Your task to perform on an android device: change notifications settings Image 0: 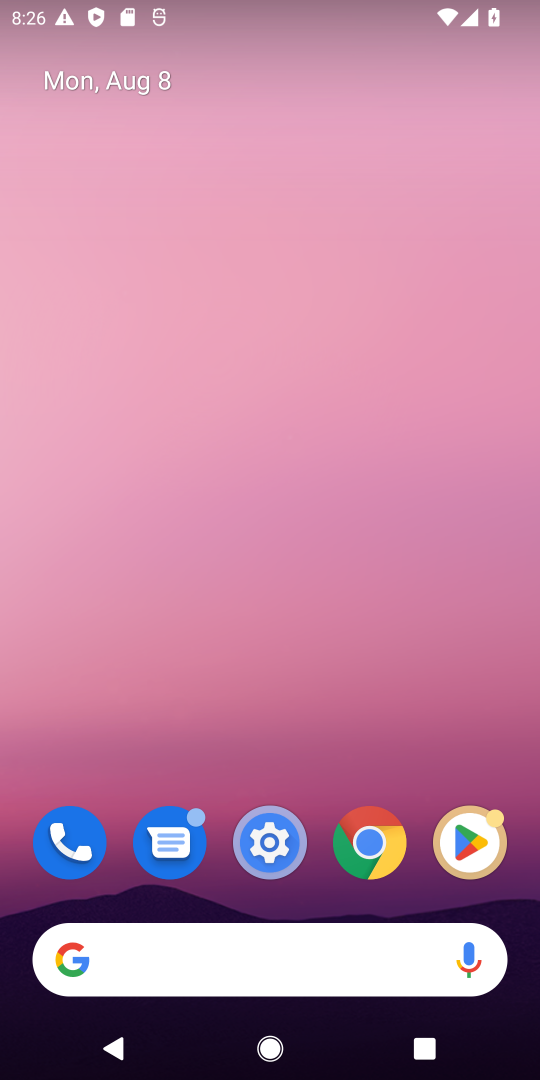
Step 0: click (271, 851)
Your task to perform on an android device: change notifications settings Image 1: 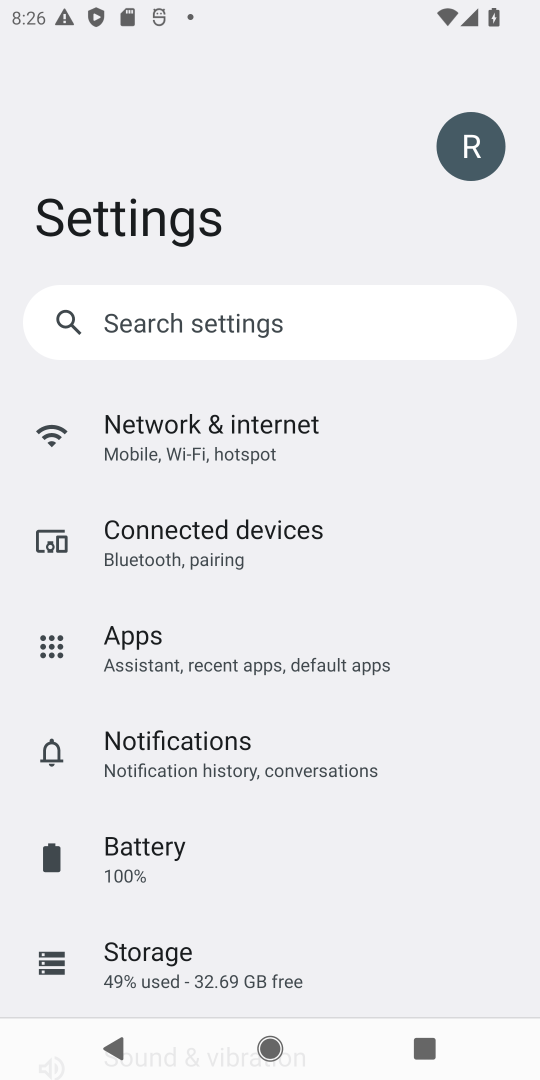
Step 1: click (245, 751)
Your task to perform on an android device: change notifications settings Image 2: 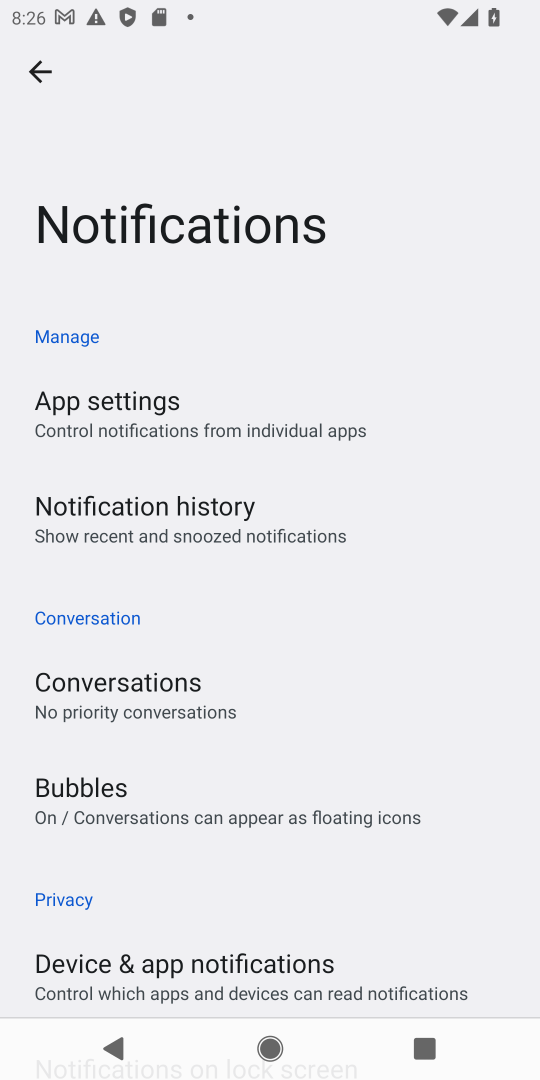
Step 2: drag from (256, 927) to (245, 744)
Your task to perform on an android device: change notifications settings Image 3: 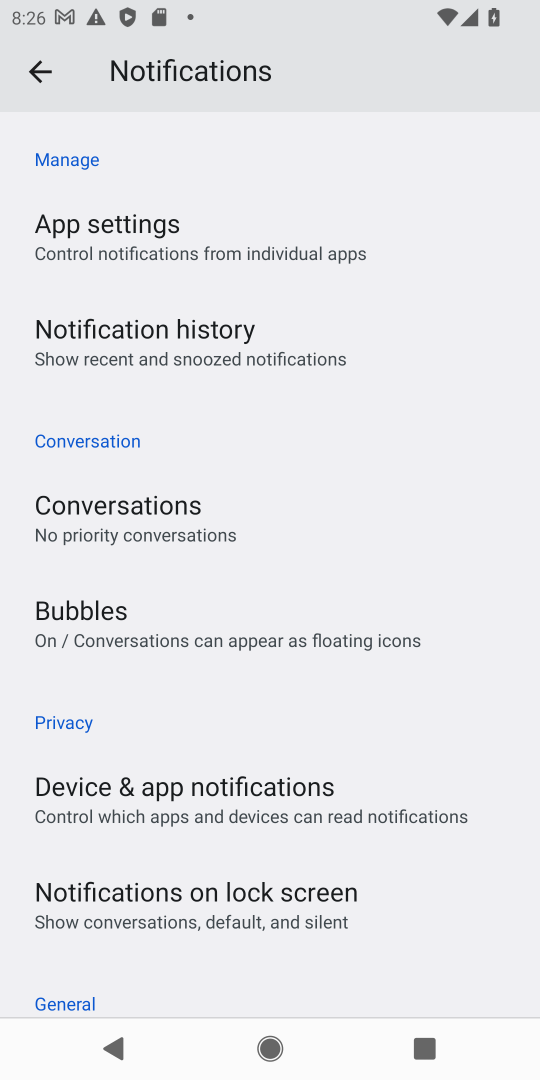
Step 3: click (240, 251)
Your task to perform on an android device: change notifications settings Image 4: 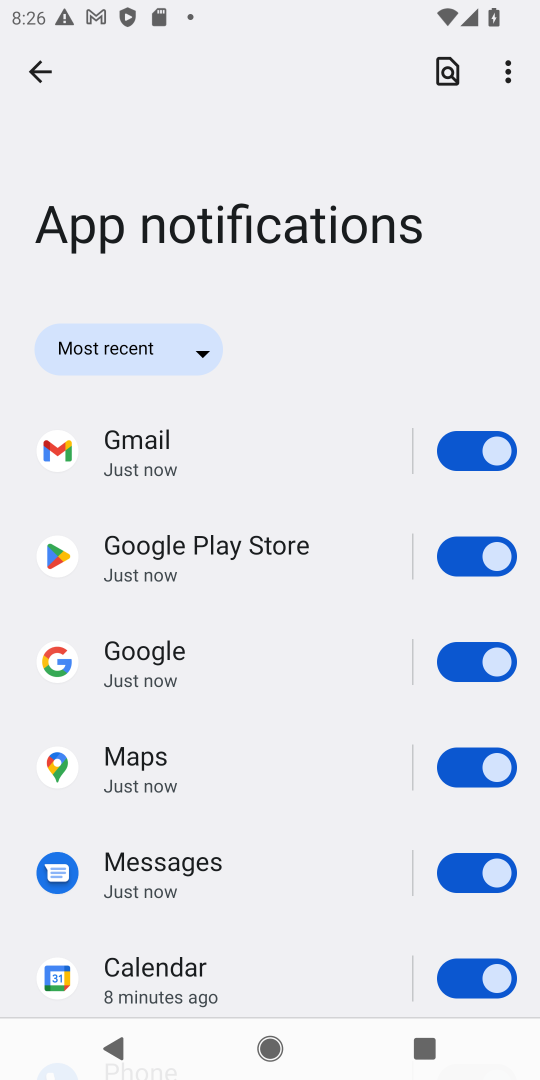
Step 4: click (475, 425)
Your task to perform on an android device: change notifications settings Image 5: 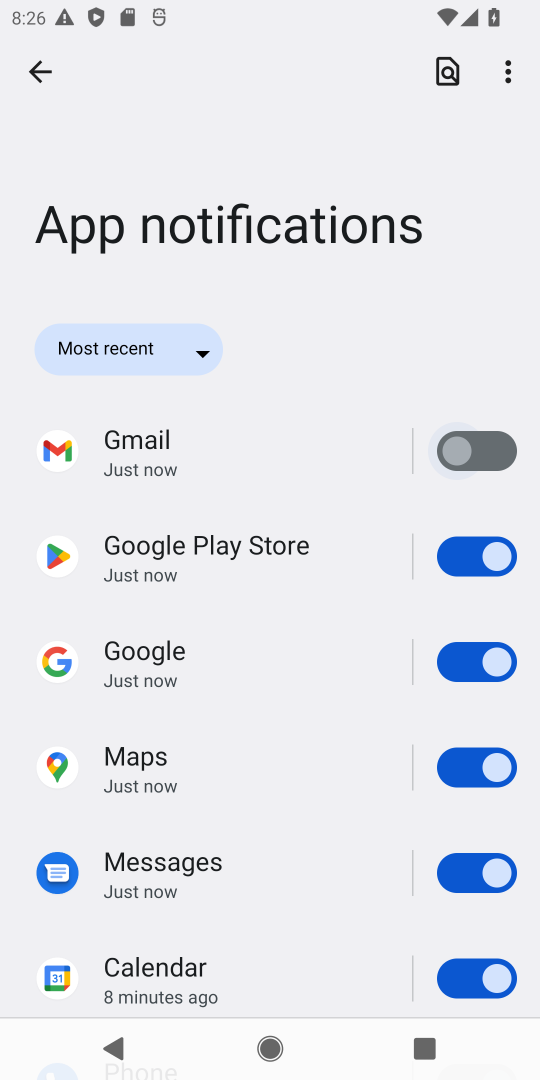
Step 5: click (464, 570)
Your task to perform on an android device: change notifications settings Image 6: 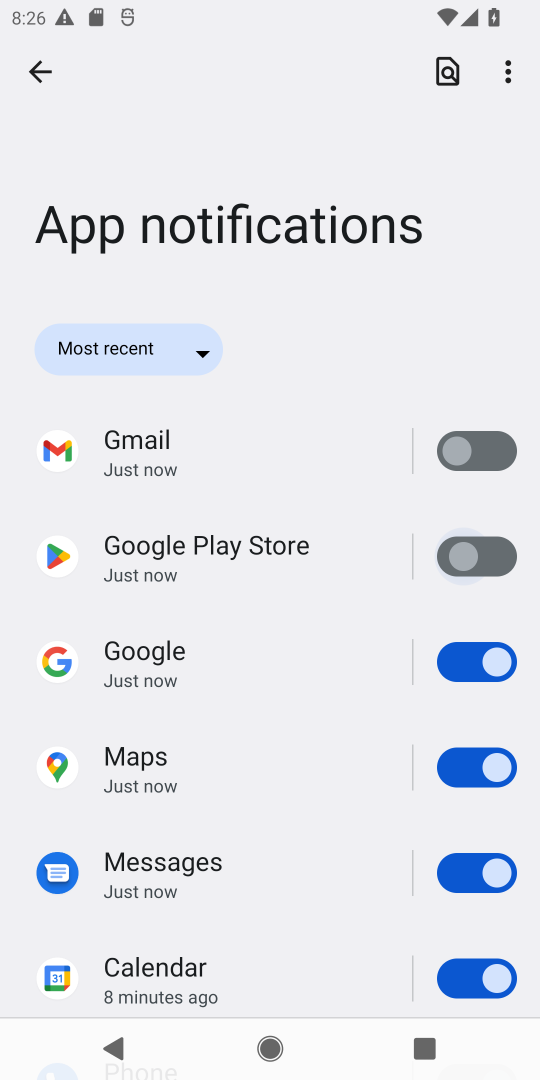
Step 6: click (464, 653)
Your task to perform on an android device: change notifications settings Image 7: 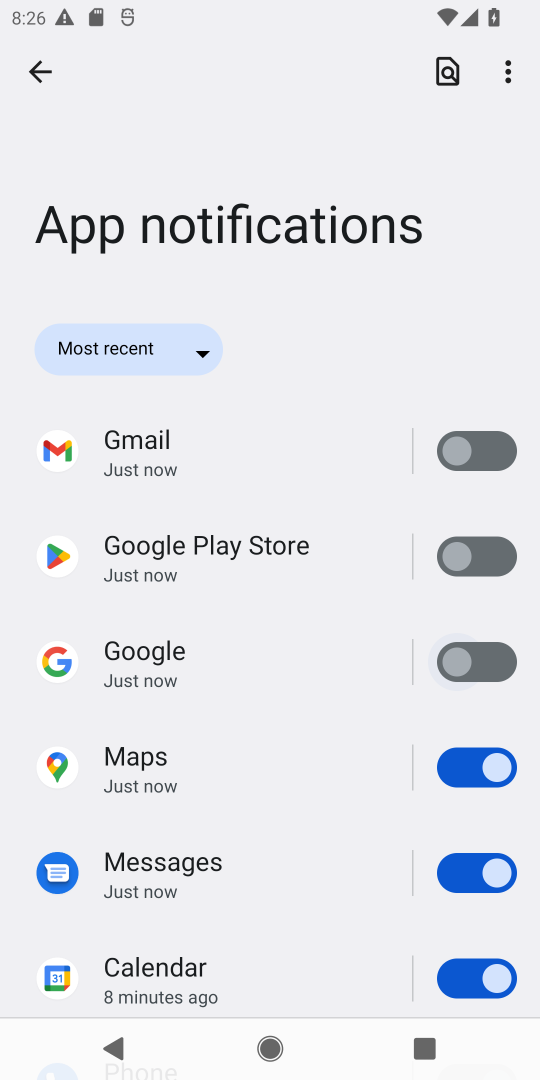
Step 7: click (467, 768)
Your task to perform on an android device: change notifications settings Image 8: 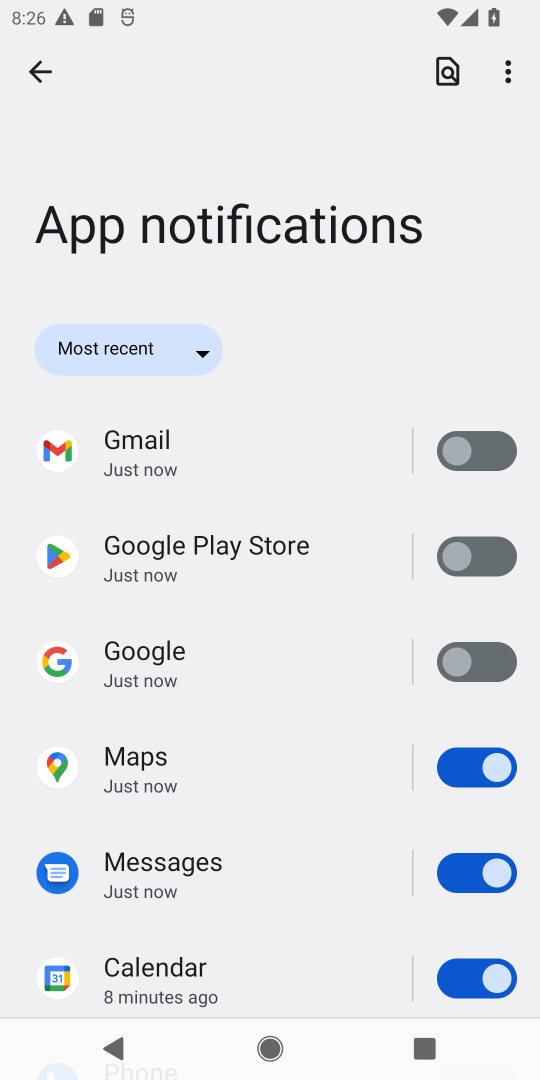
Step 8: click (467, 864)
Your task to perform on an android device: change notifications settings Image 9: 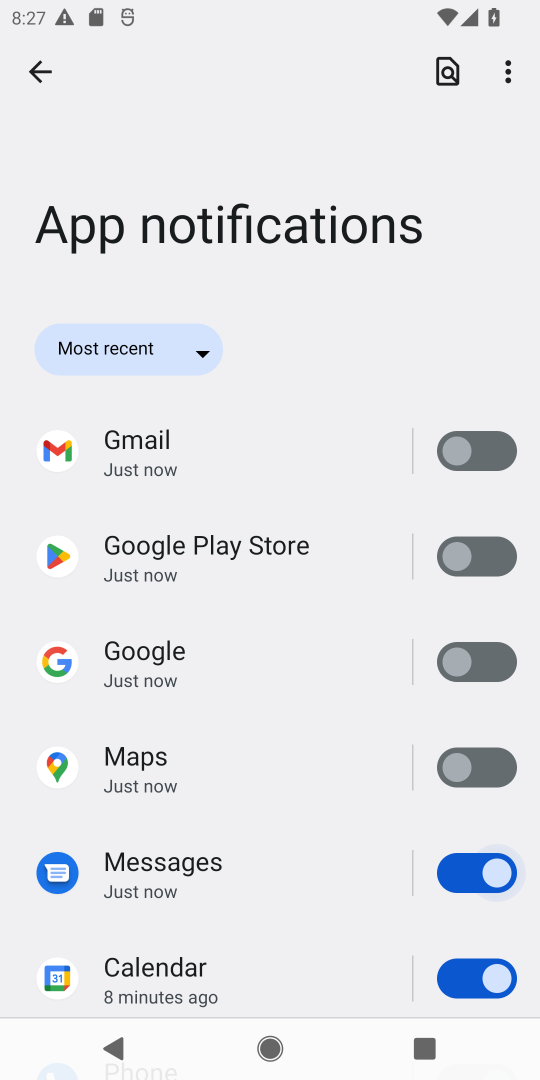
Step 9: click (466, 988)
Your task to perform on an android device: change notifications settings Image 10: 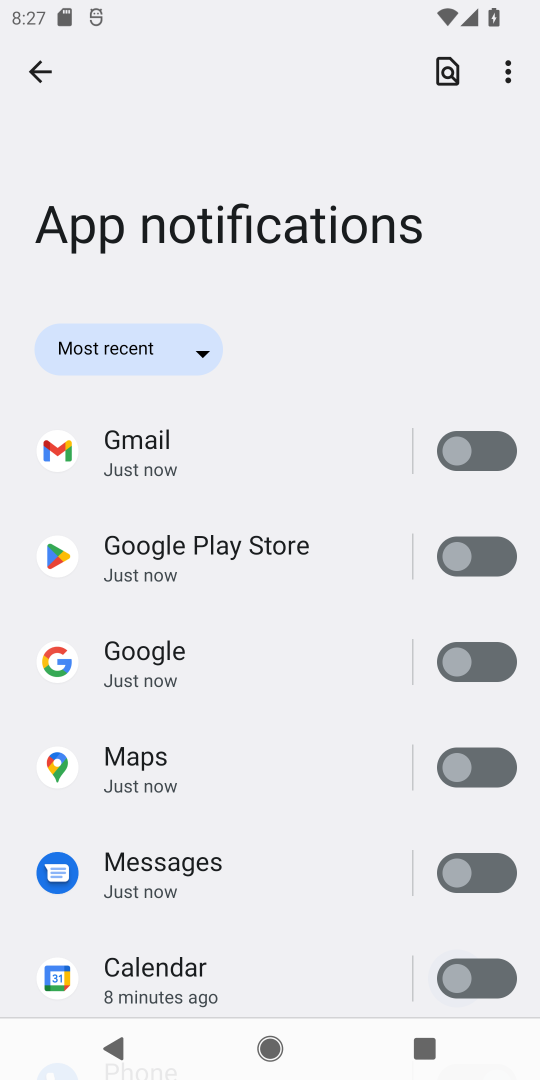
Step 10: drag from (289, 934) to (238, 249)
Your task to perform on an android device: change notifications settings Image 11: 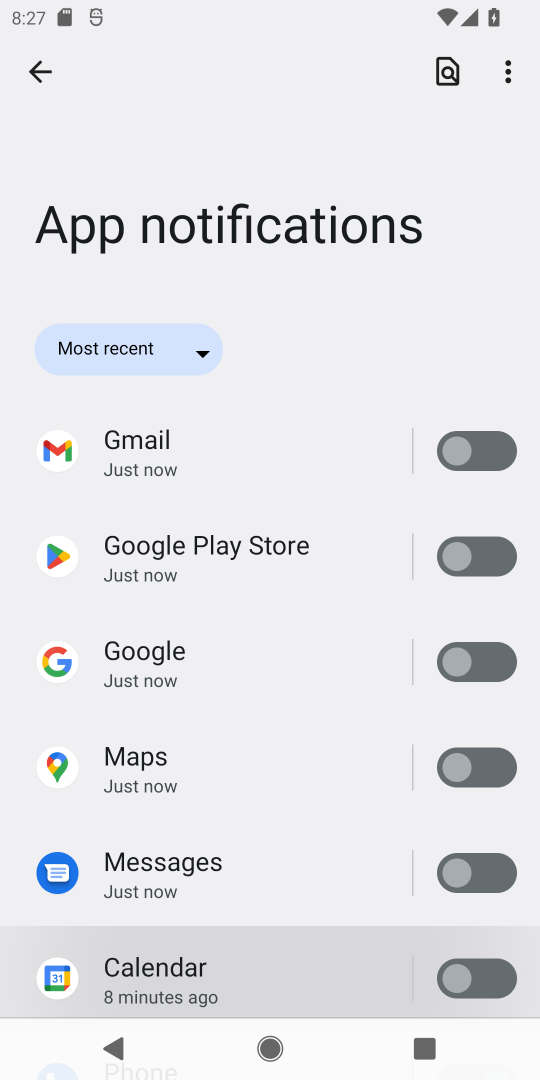
Step 11: click (238, 249)
Your task to perform on an android device: change notifications settings Image 12: 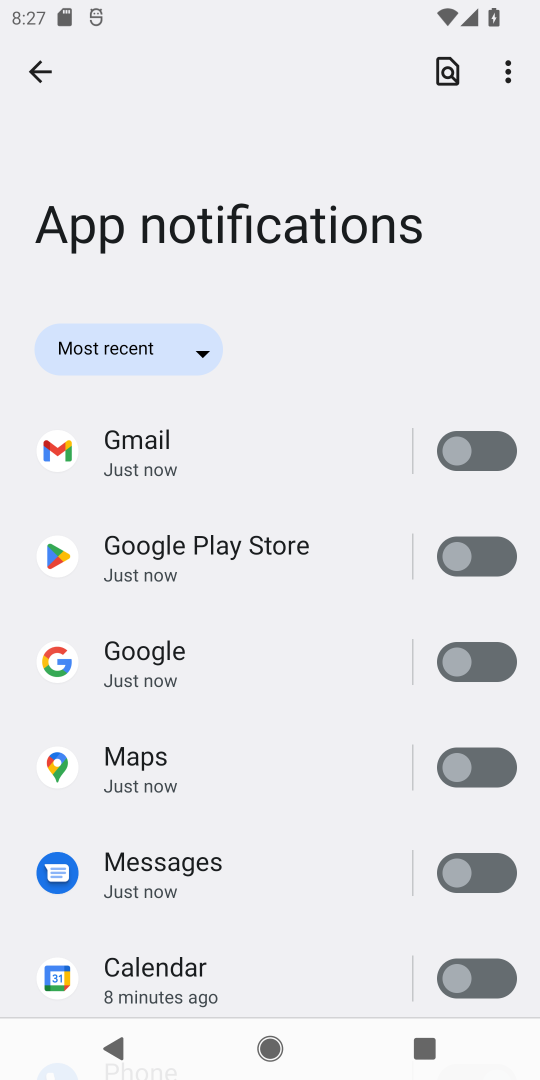
Step 12: drag from (338, 859) to (241, 135)
Your task to perform on an android device: change notifications settings Image 13: 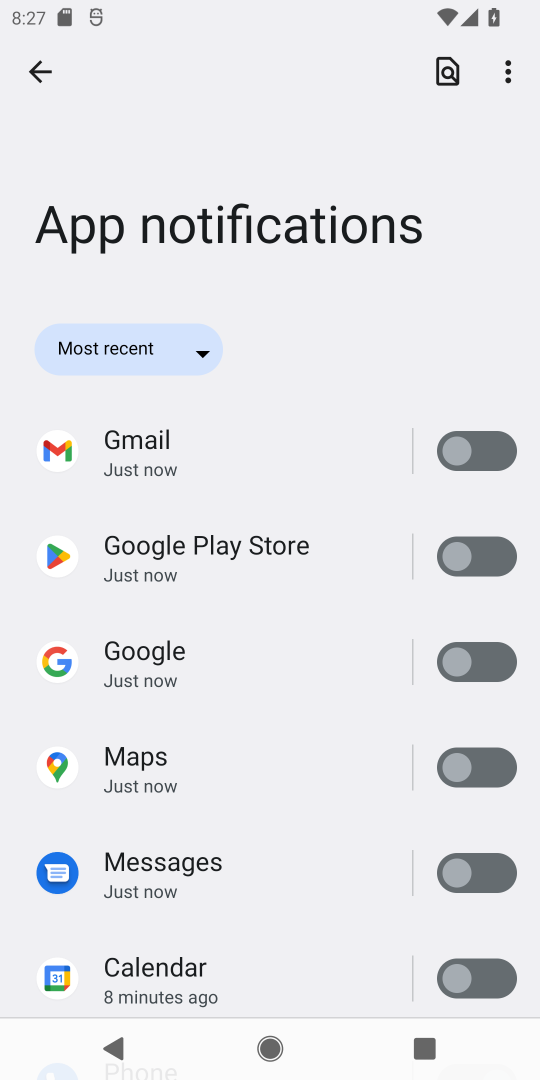
Step 13: drag from (306, 805) to (281, 87)
Your task to perform on an android device: change notifications settings Image 14: 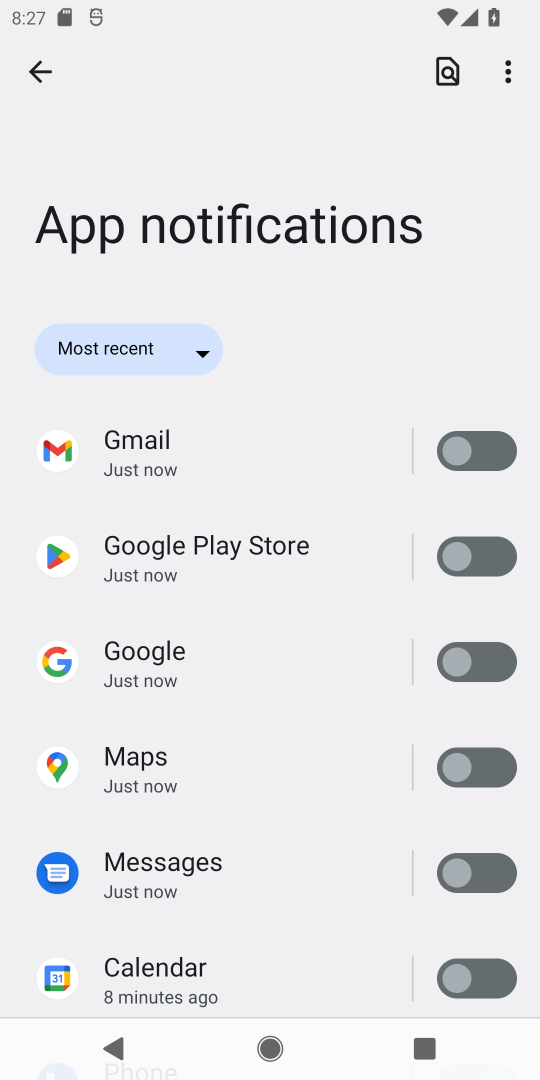
Step 14: drag from (276, 839) to (275, 301)
Your task to perform on an android device: change notifications settings Image 15: 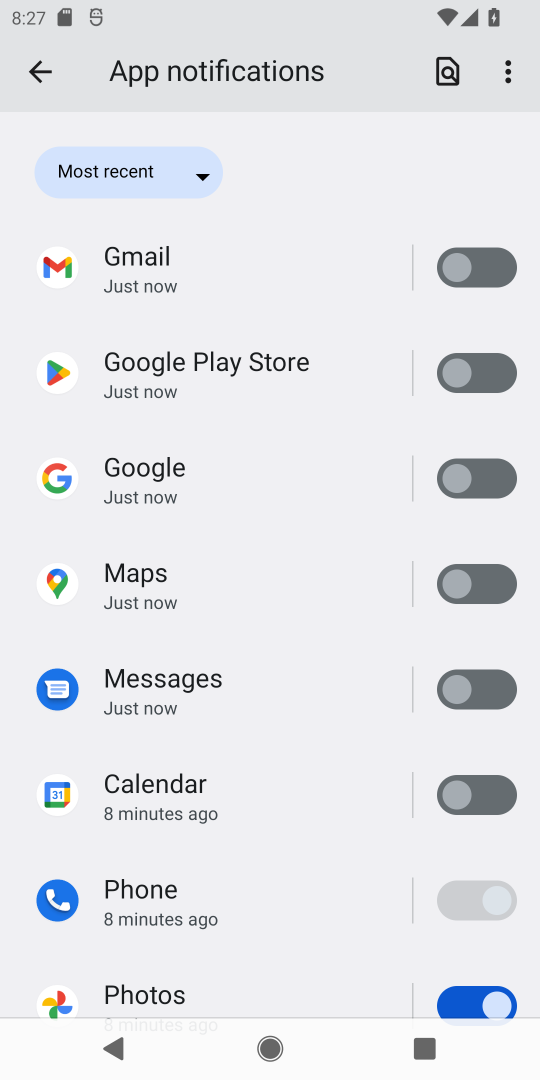
Step 15: click (482, 905)
Your task to perform on an android device: change notifications settings Image 16: 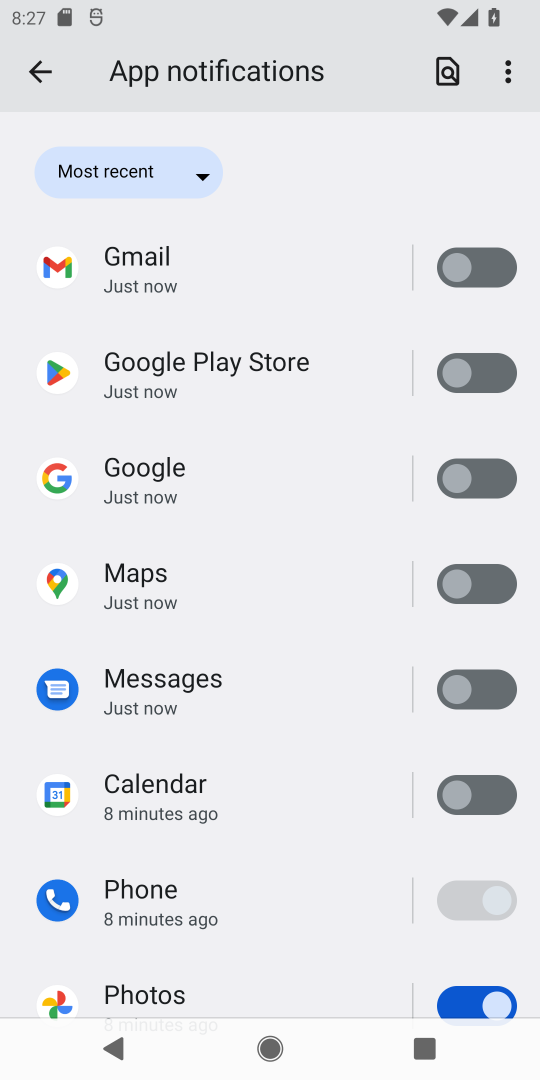
Step 16: click (468, 995)
Your task to perform on an android device: change notifications settings Image 17: 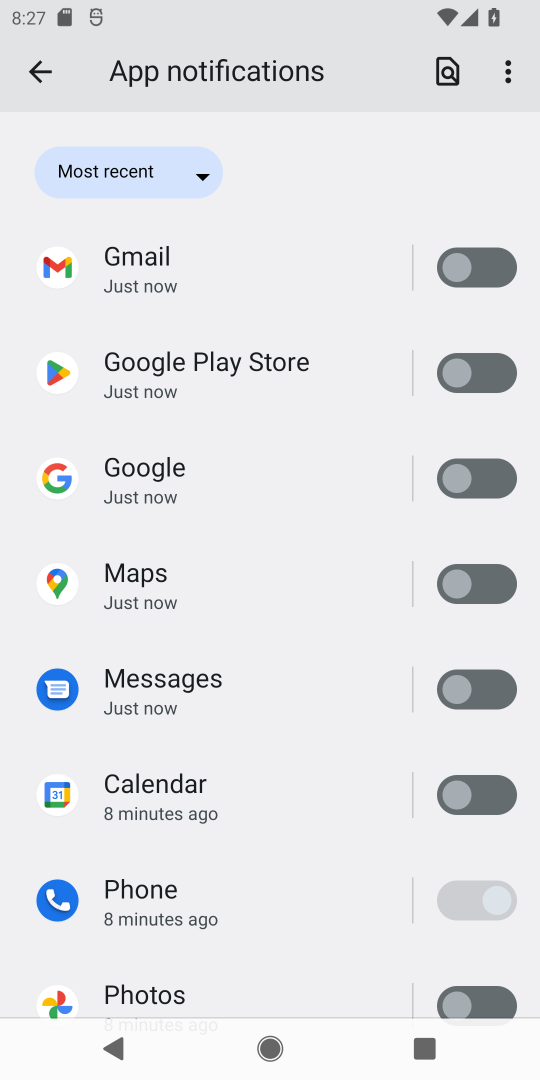
Step 17: click (41, 71)
Your task to perform on an android device: change notifications settings Image 18: 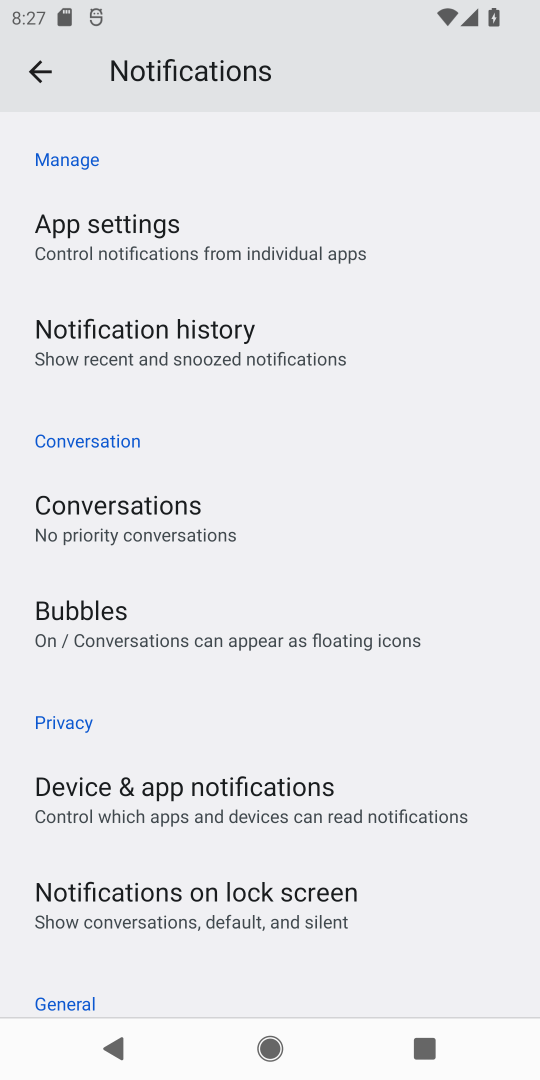
Step 18: click (197, 930)
Your task to perform on an android device: change notifications settings Image 19: 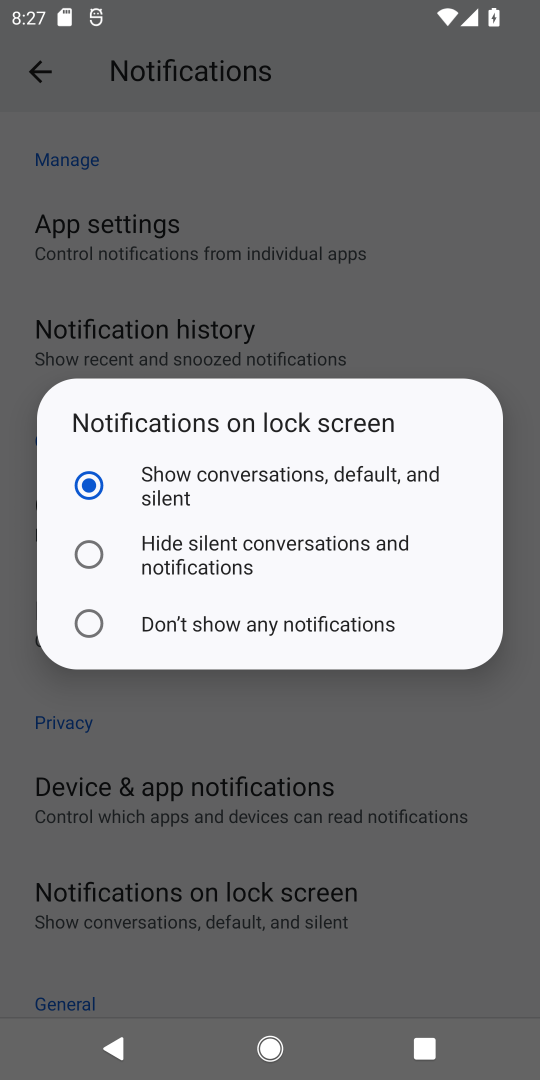
Step 19: click (241, 533)
Your task to perform on an android device: change notifications settings Image 20: 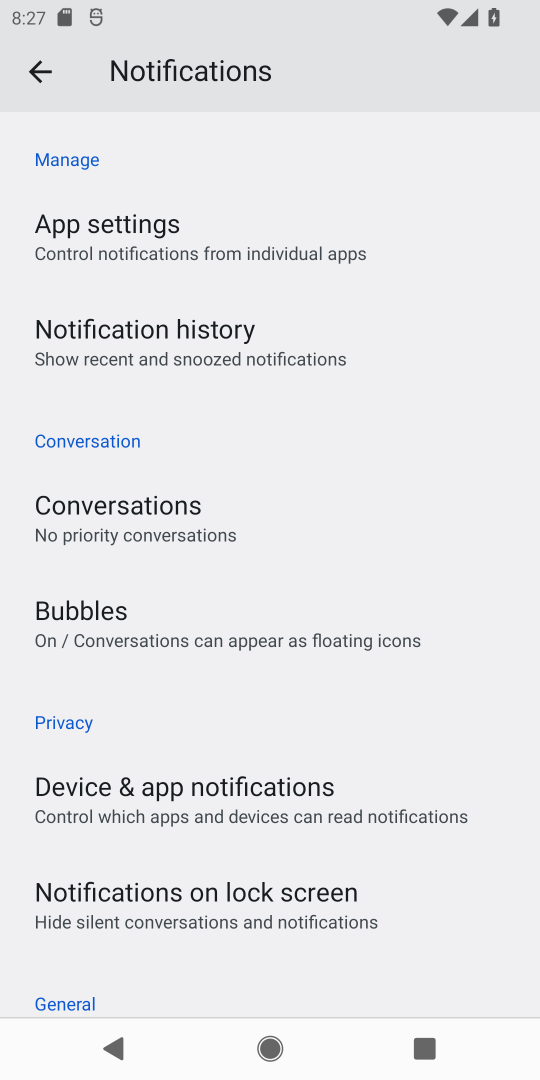
Step 20: drag from (215, 639) to (192, 137)
Your task to perform on an android device: change notifications settings Image 21: 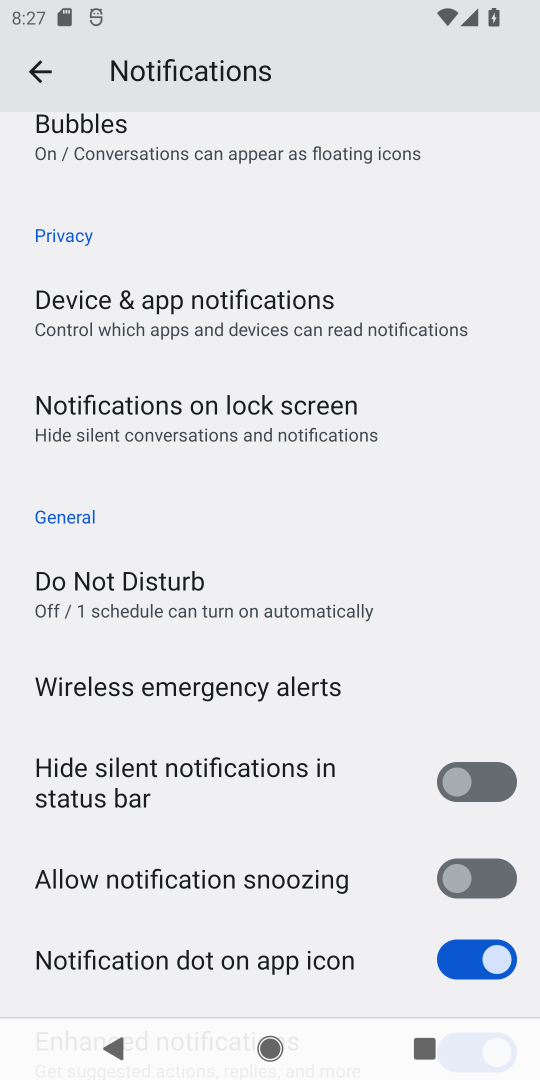
Step 21: click (468, 783)
Your task to perform on an android device: change notifications settings Image 22: 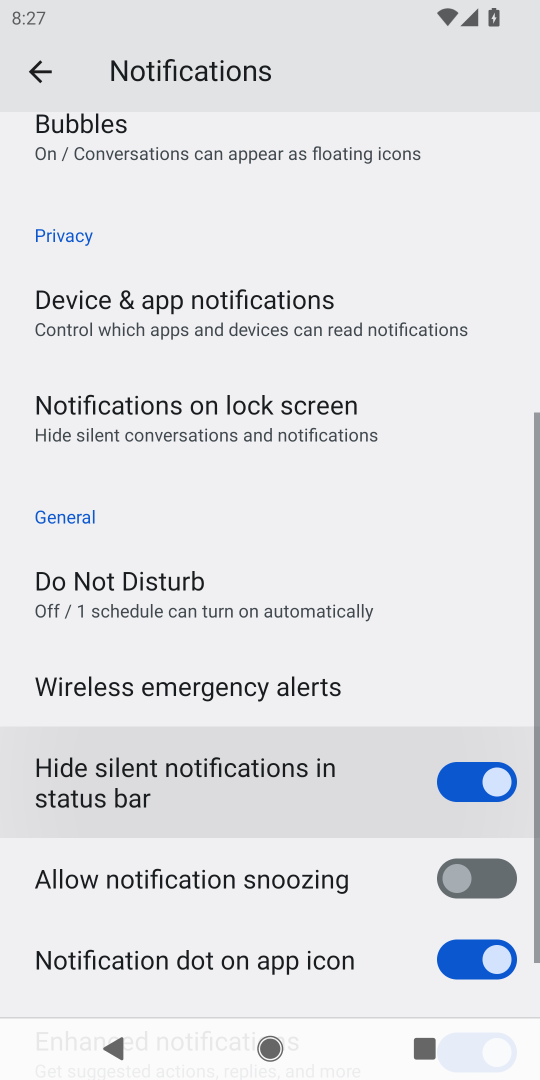
Step 22: click (482, 857)
Your task to perform on an android device: change notifications settings Image 23: 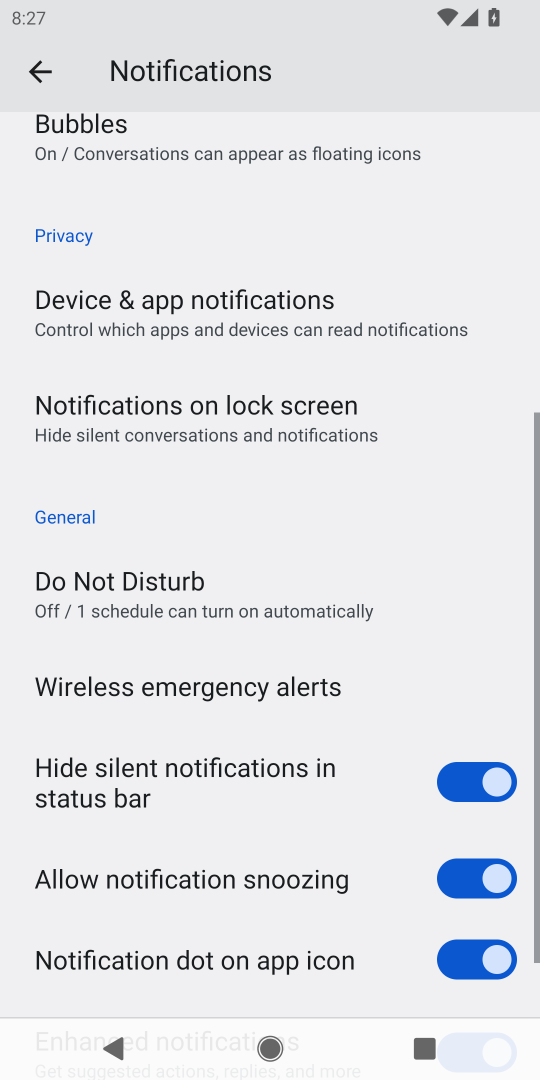
Step 23: click (500, 956)
Your task to perform on an android device: change notifications settings Image 24: 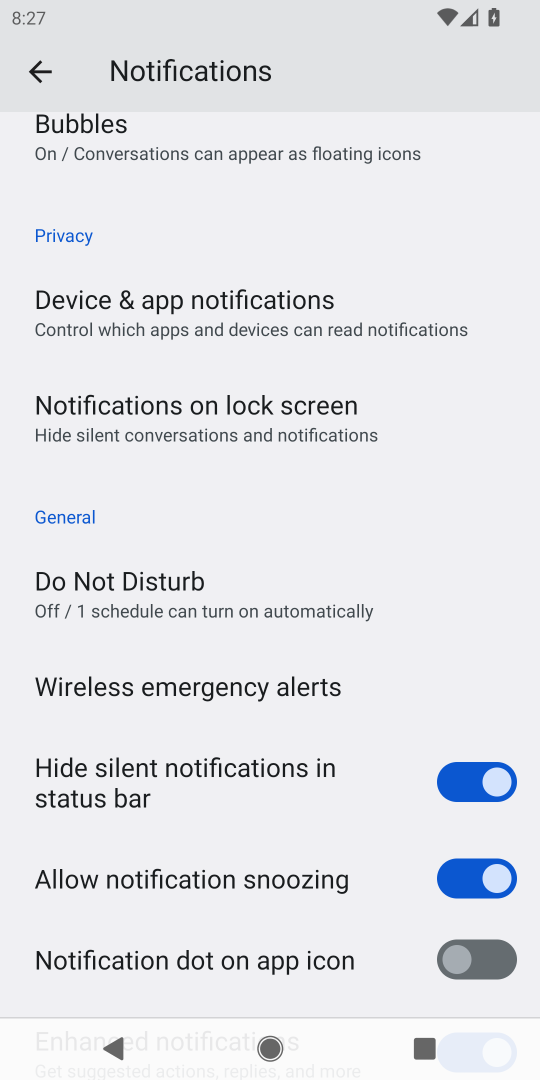
Step 24: drag from (338, 959) to (300, 292)
Your task to perform on an android device: change notifications settings Image 25: 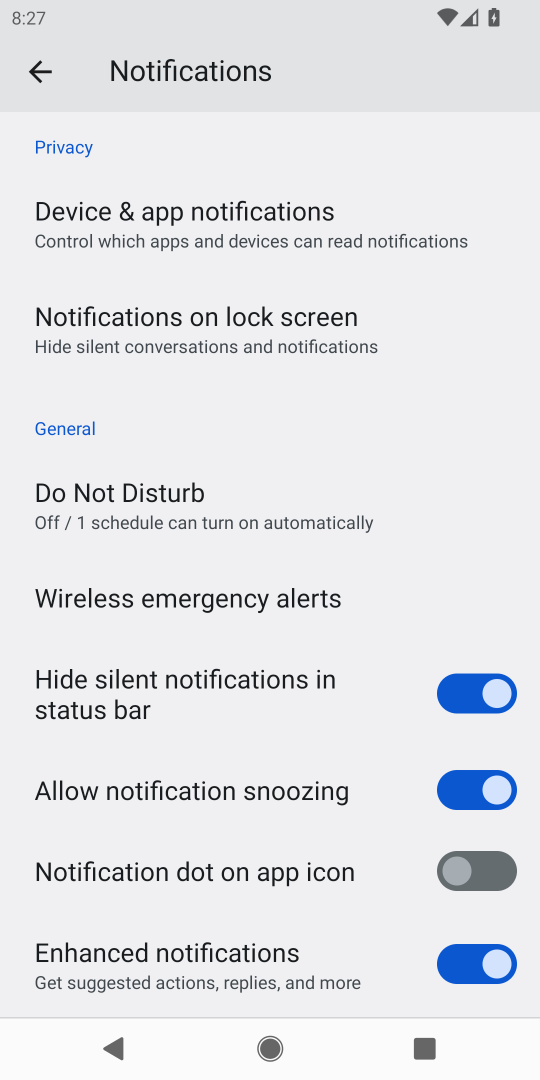
Step 25: click (467, 960)
Your task to perform on an android device: change notifications settings Image 26: 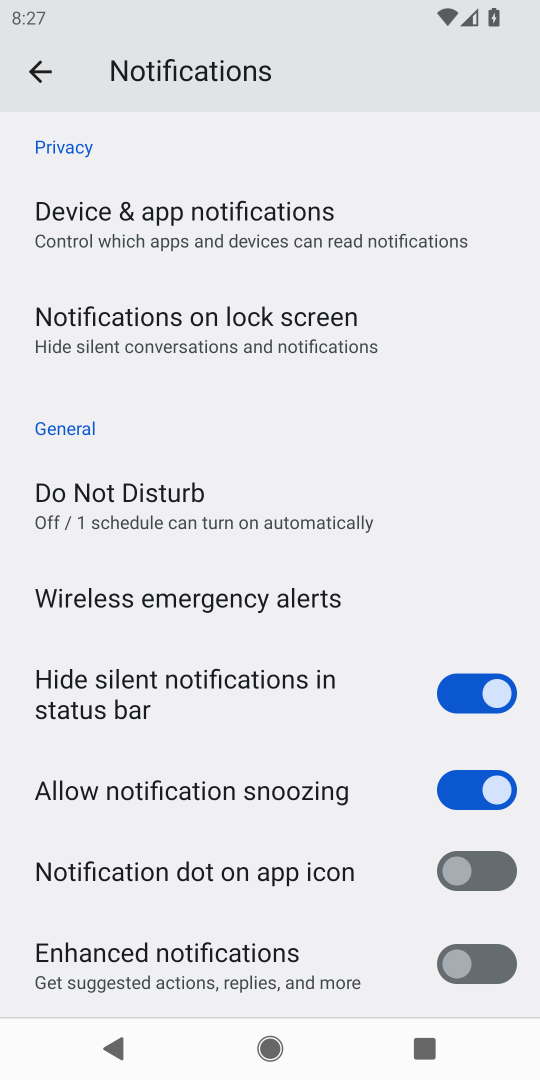
Step 26: task complete